Your task to perform on an android device: toggle javascript in the chrome app Image 0: 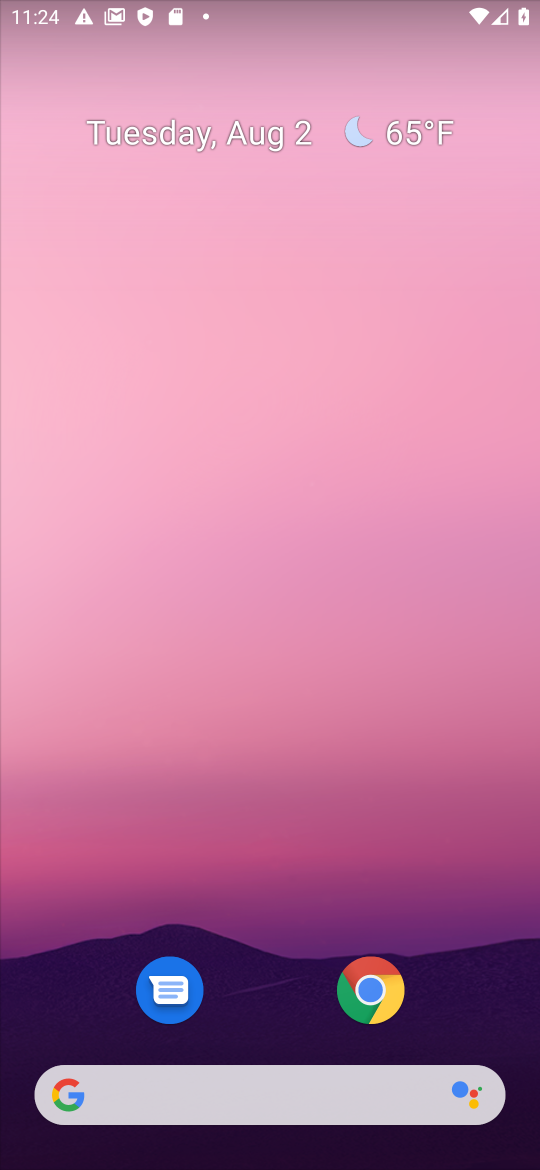
Step 0: drag from (284, 953) to (345, 285)
Your task to perform on an android device: toggle javascript in the chrome app Image 1: 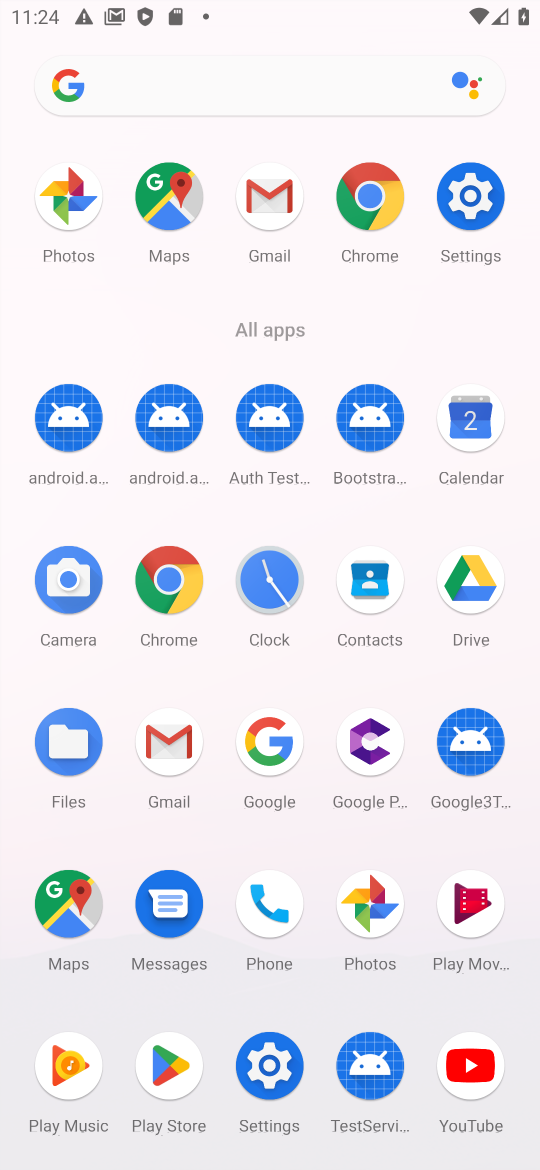
Step 1: click (160, 548)
Your task to perform on an android device: toggle javascript in the chrome app Image 2: 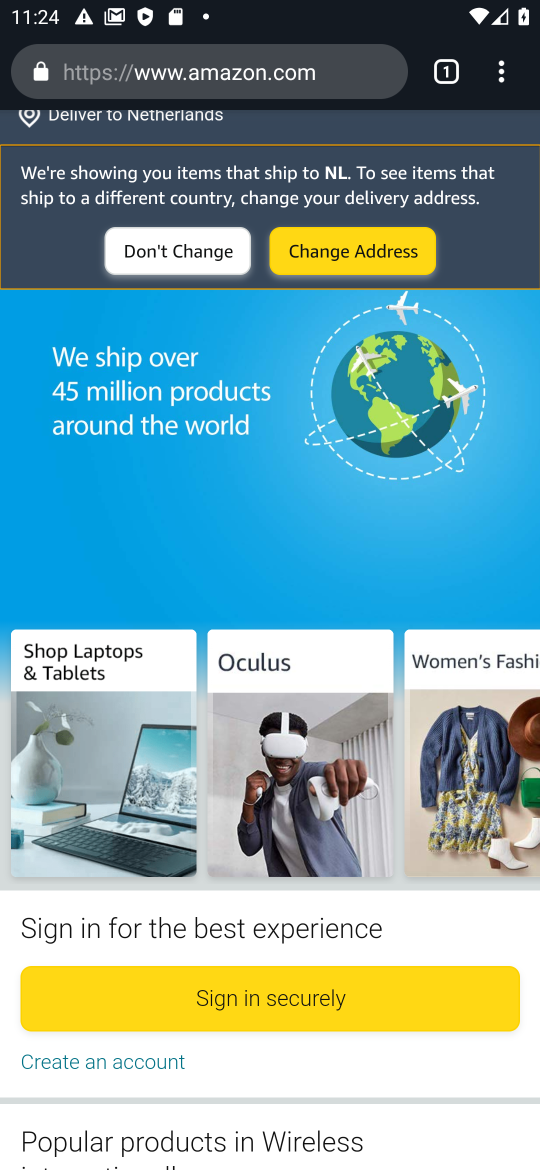
Step 2: click (506, 71)
Your task to perform on an android device: toggle javascript in the chrome app Image 3: 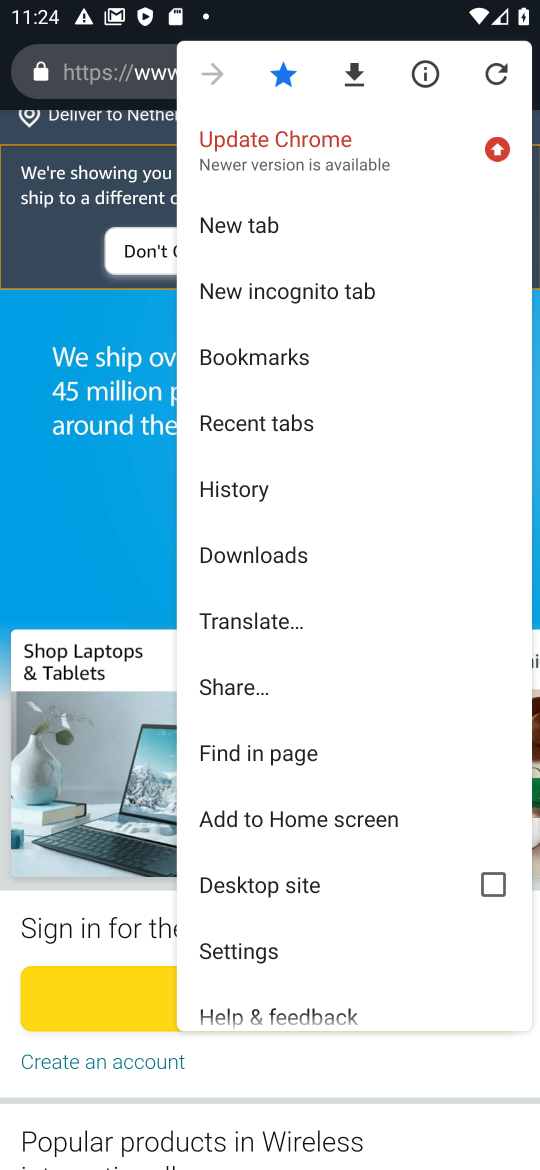
Step 3: click (259, 937)
Your task to perform on an android device: toggle javascript in the chrome app Image 4: 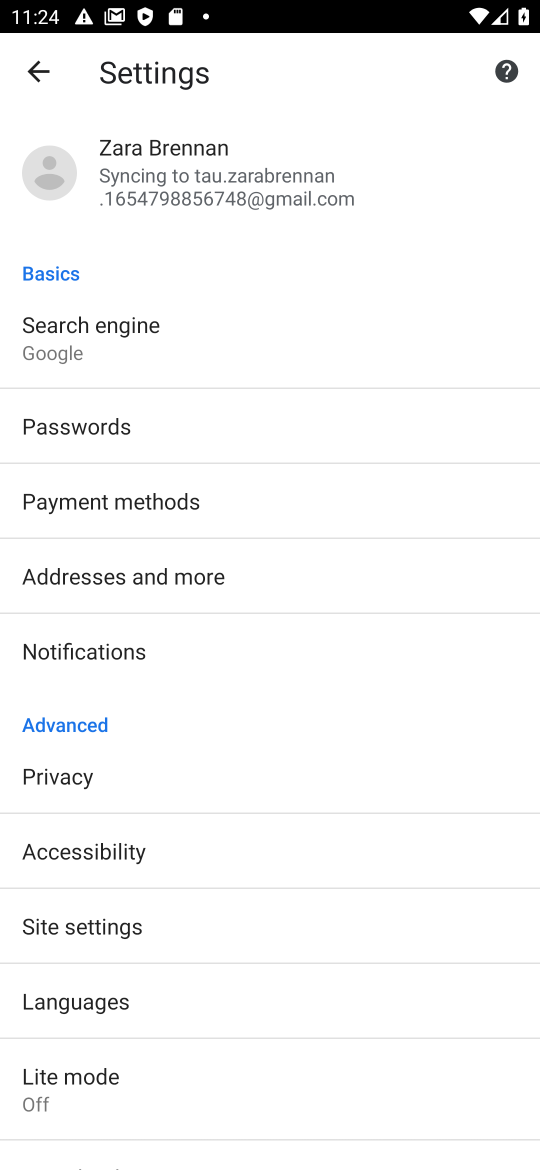
Step 4: click (120, 931)
Your task to perform on an android device: toggle javascript in the chrome app Image 5: 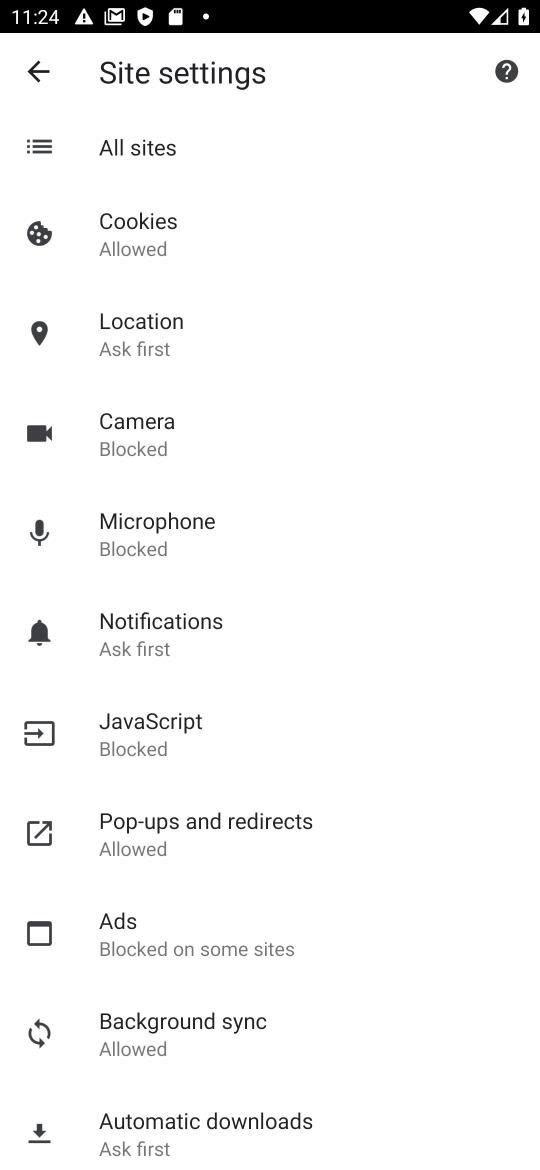
Step 5: click (197, 734)
Your task to perform on an android device: toggle javascript in the chrome app Image 6: 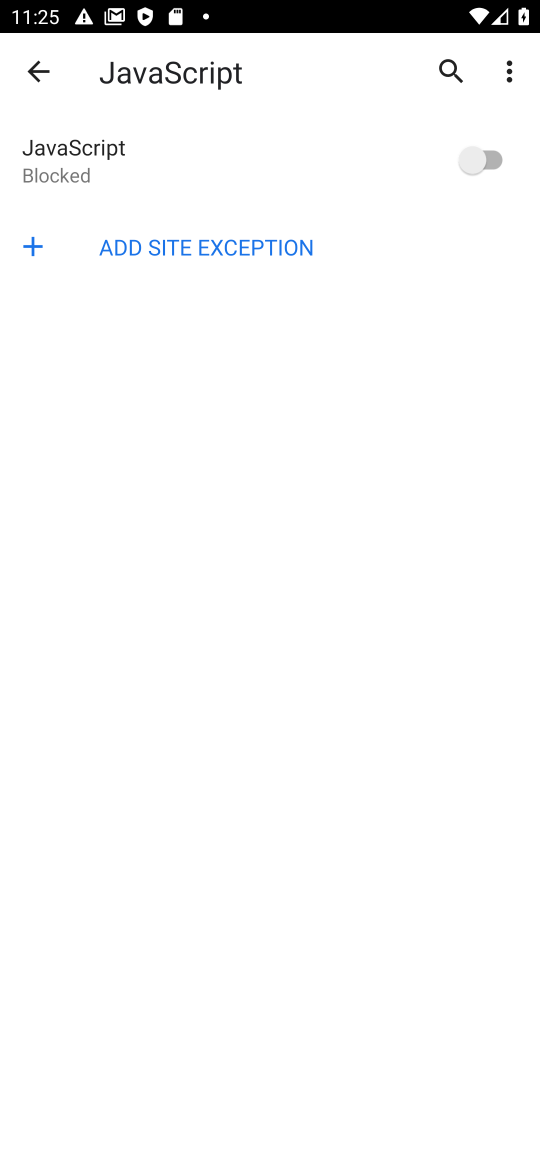
Step 6: click (513, 161)
Your task to perform on an android device: toggle javascript in the chrome app Image 7: 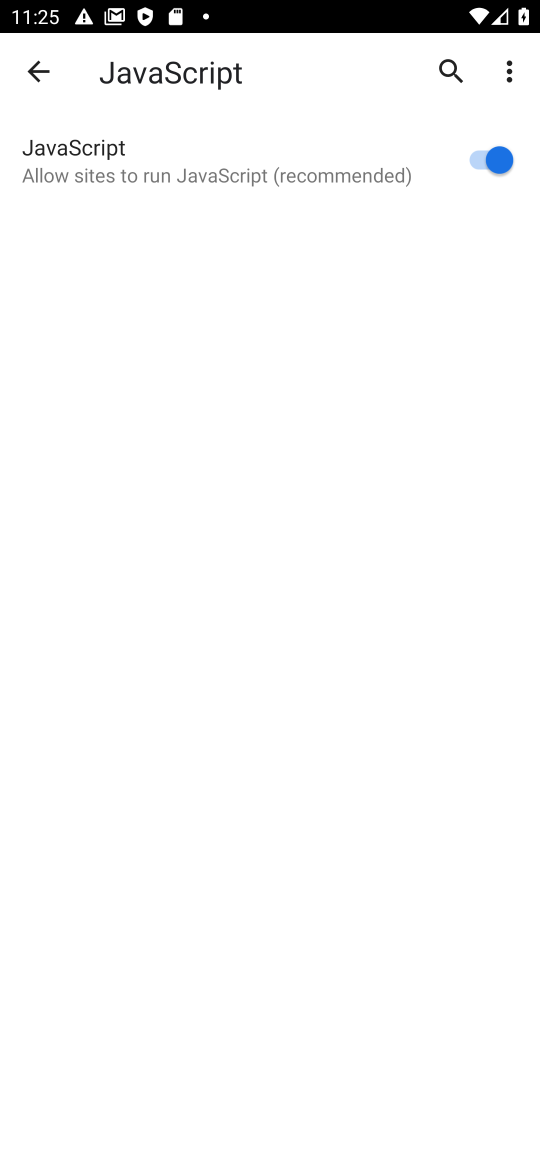
Step 7: task complete